Your task to perform on an android device: Search for "corsair k70" on walmart, select the first entry, and add it to the cart. Image 0: 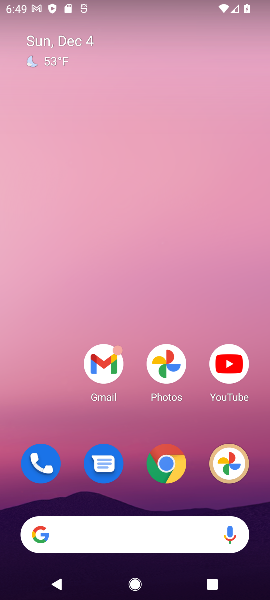
Step 0: click (138, 528)
Your task to perform on an android device: Search for "corsair k70" on walmart, select the first entry, and add it to the cart. Image 1: 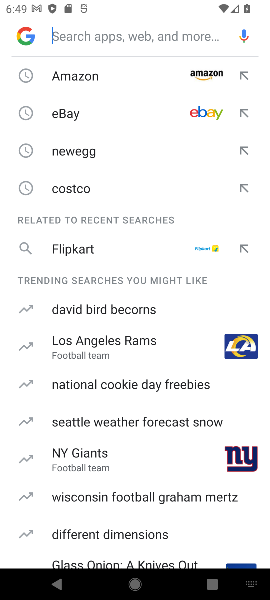
Step 1: type "walmart"
Your task to perform on an android device: Search for "corsair k70" on walmart, select the first entry, and add it to the cart. Image 2: 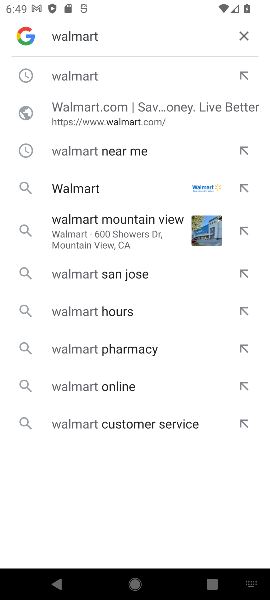
Step 2: click (167, 109)
Your task to perform on an android device: Search for "corsair k70" on walmart, select the first entry, and add it to the cart. Image 3: 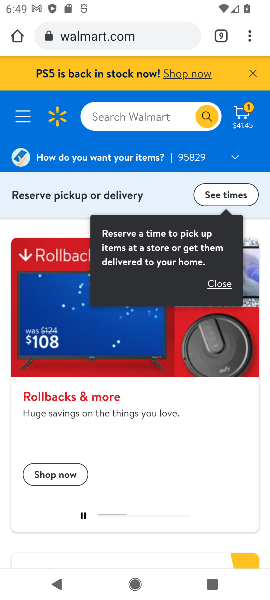
Step 3: click (167, 109)
Your task to perform on an android device: Search for "corsair k70" on walmart, select the first entry, and add it to the cart. Image 4: 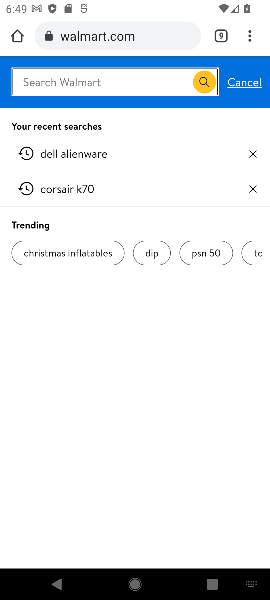
Step 4: click (167, 109)
Your task to perform on an android device: Search for "corsair k70" on walmart, select the first entry, and add it to the cart. Image 5: 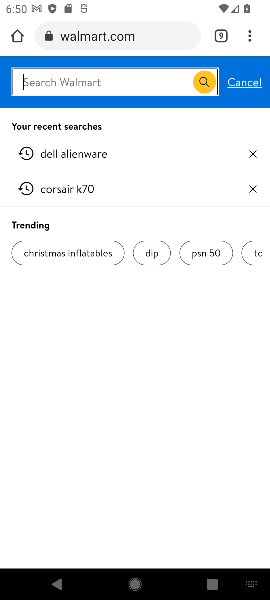
Step 5: type "corsair k70"
Your task to perform on an android device: Search for "corsair k70" on walmart, select the first entry, and add it to the cart. Image 6: 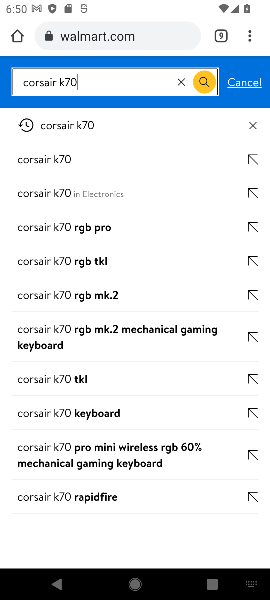
Step 6: click (124, 119)
Your task to perform on an android device: Search for "corsair k70" on walmart, select the first entry, and add it to the cart. Image 7: 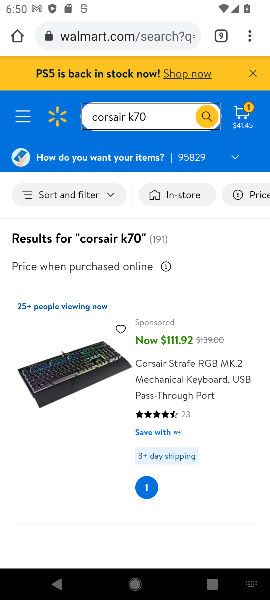
Step 7: click (164, 355)
Your task to perform on an android device: Search for "corsair k70" on walmart, select the first entry, and add it to the cart. Image 8: 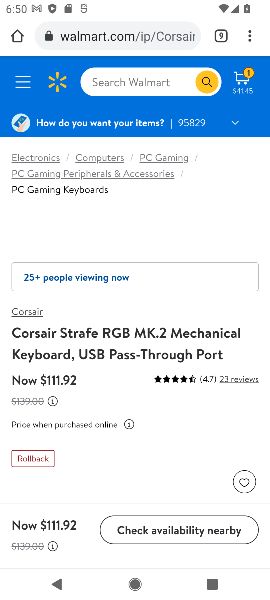
Step 8: click (175, 523)
Your task to perform on an android device: Search for "corsair k70" on walmart, select the first entry, and add it to the cart. Image 9: 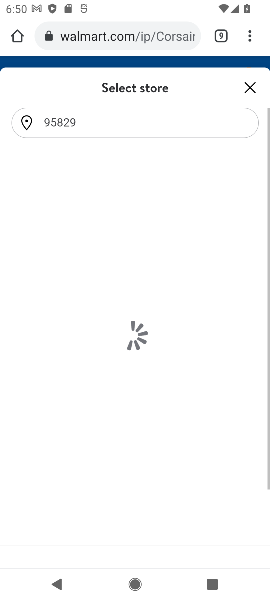
Step 9: task complete